Your task to perform on an android device: Open the map Image 0: 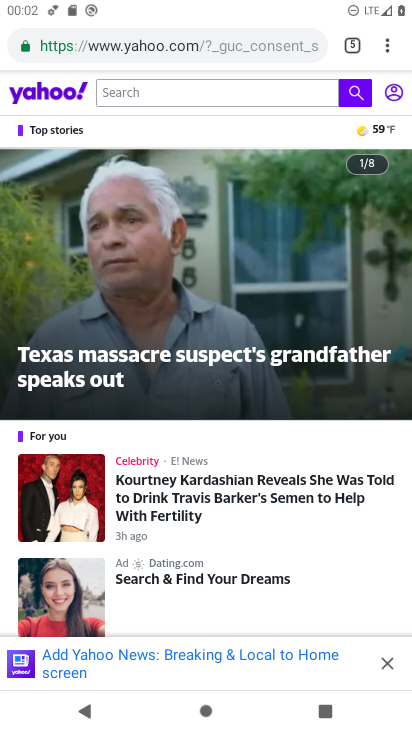
Step 0: press home button
Your task to perform on an android device: Open the map Image 1: 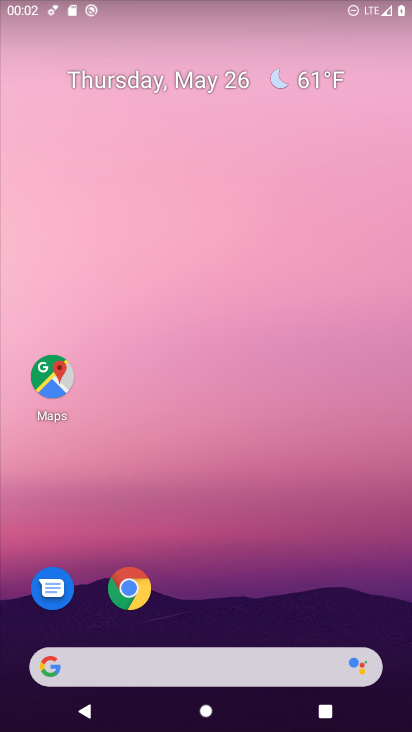
Step 1: click (39, 376)
Your task to perform on an android device: Open the map Image 2: 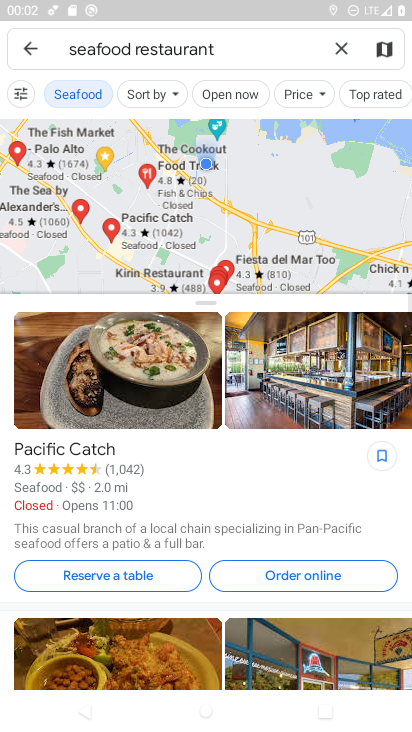
Step 2: task complete